Your task to perform on an android device: Go to location settings Image 0: 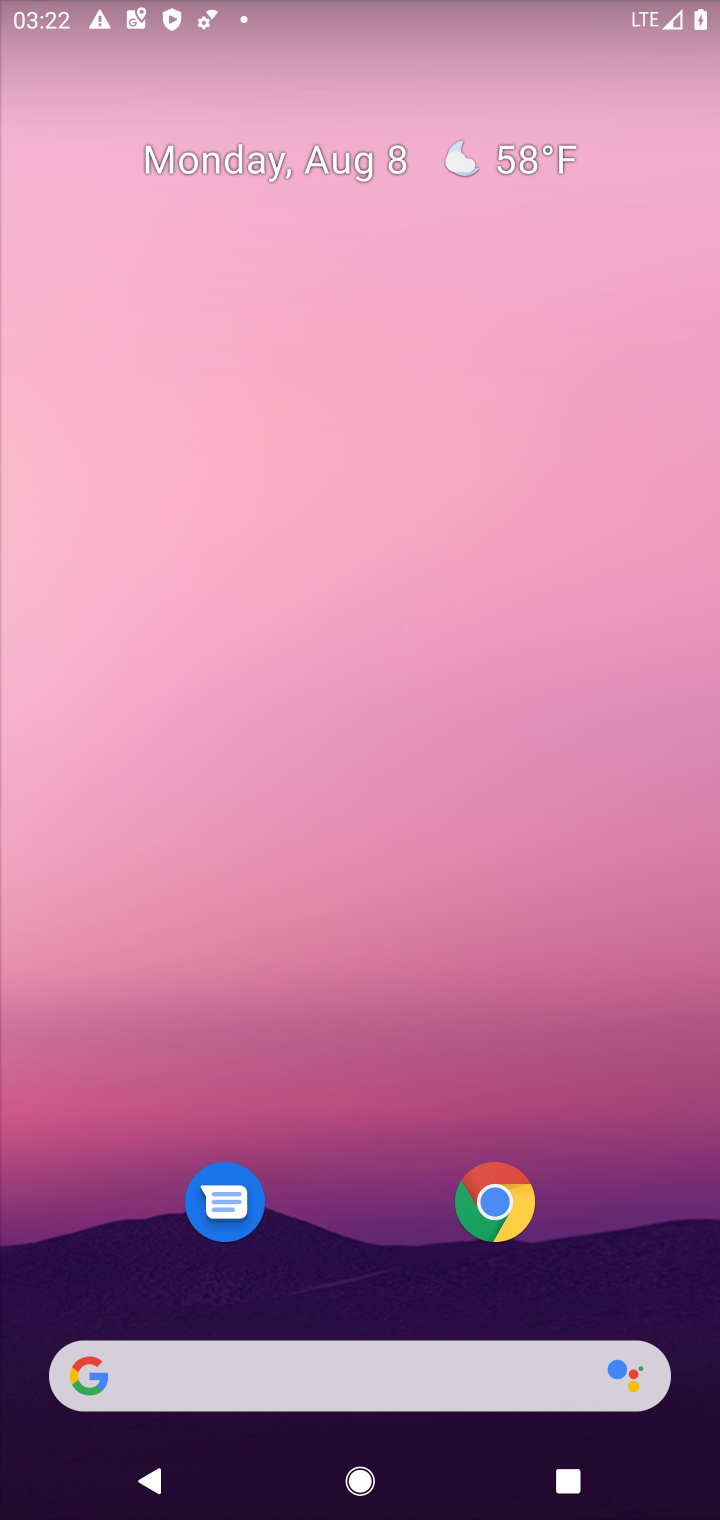
Step 0: press home button
Your task to perform on an android device: Go to location settings Image 1: 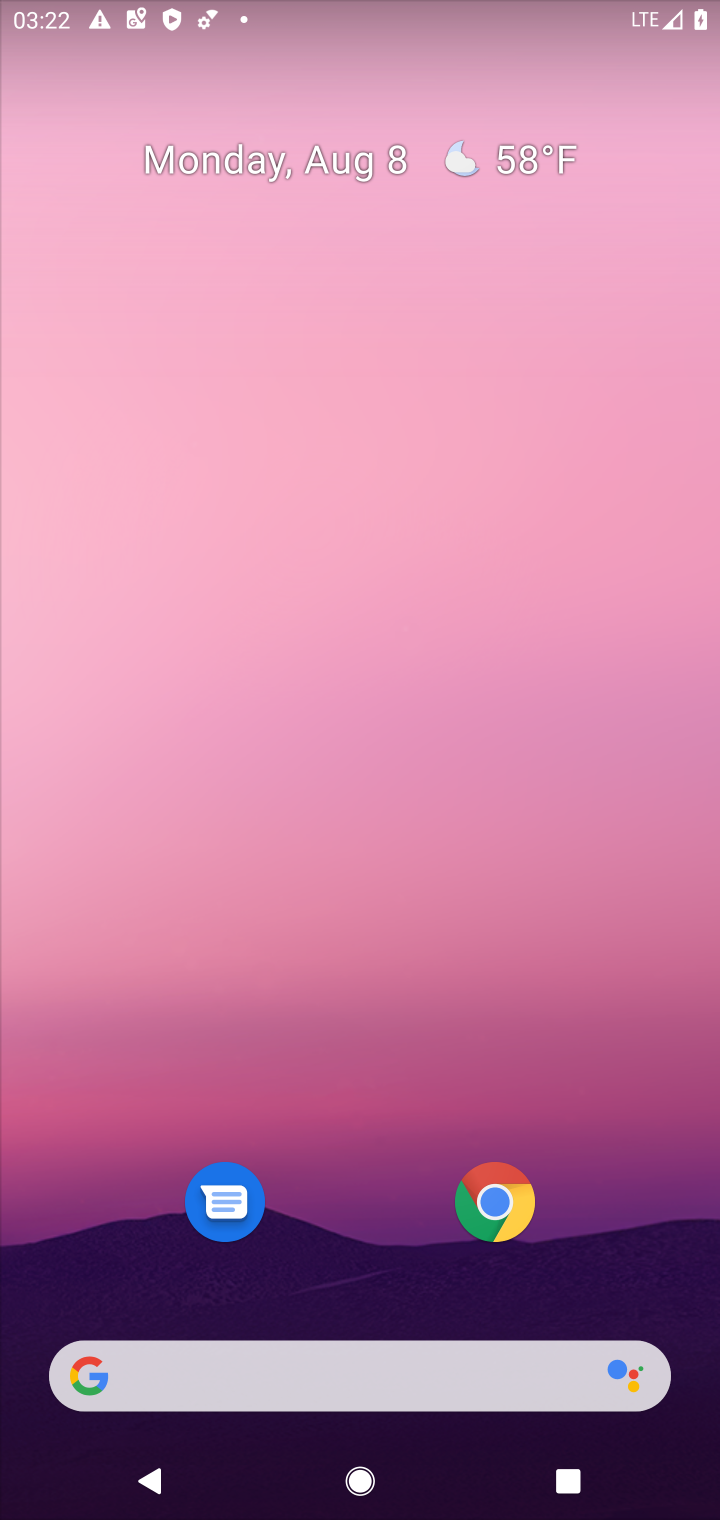
Step 1: drag from (364, 1230) to (386, 362)
Your task to perform on an android device: Go to location settings Image 2: 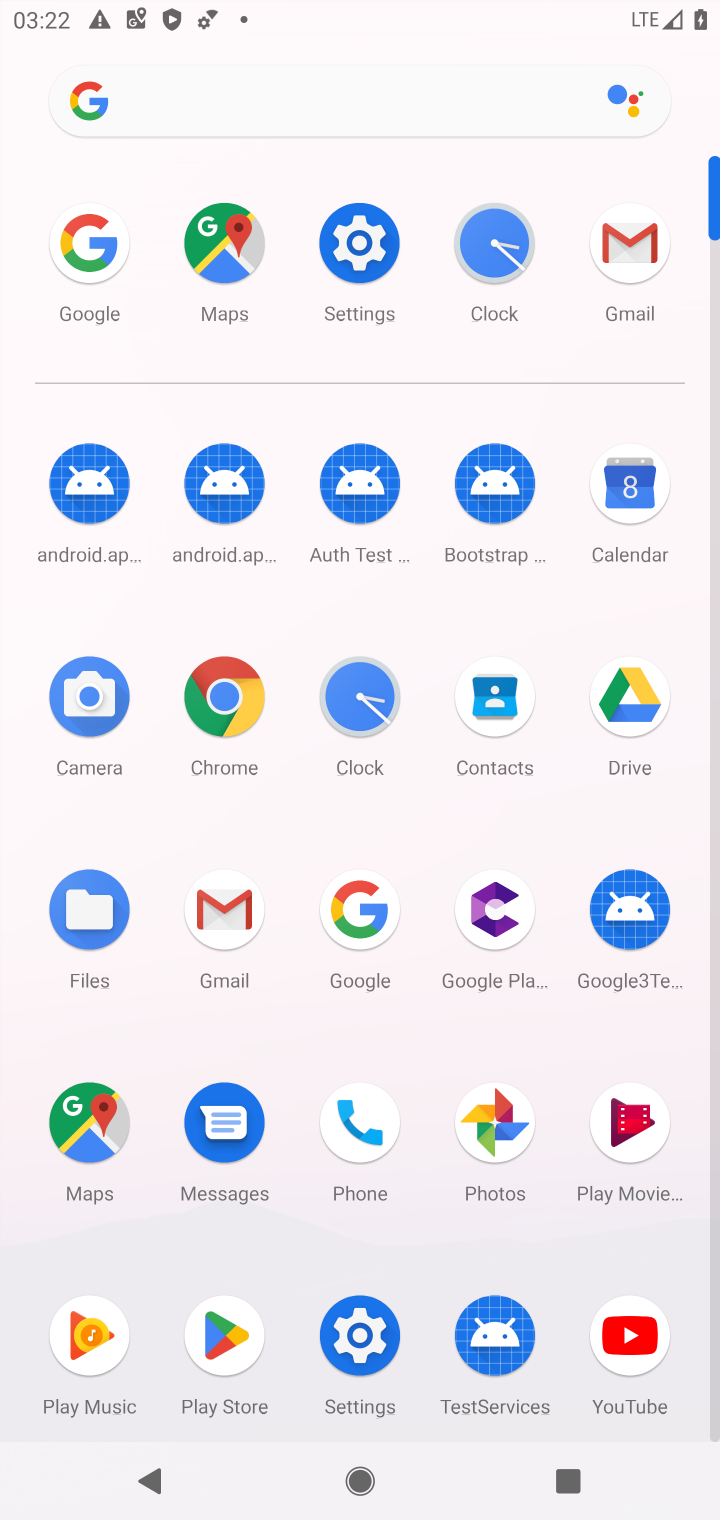
Step 2: click (356, 252)
Your task to perform on an android device: Go to location settings Image 3: 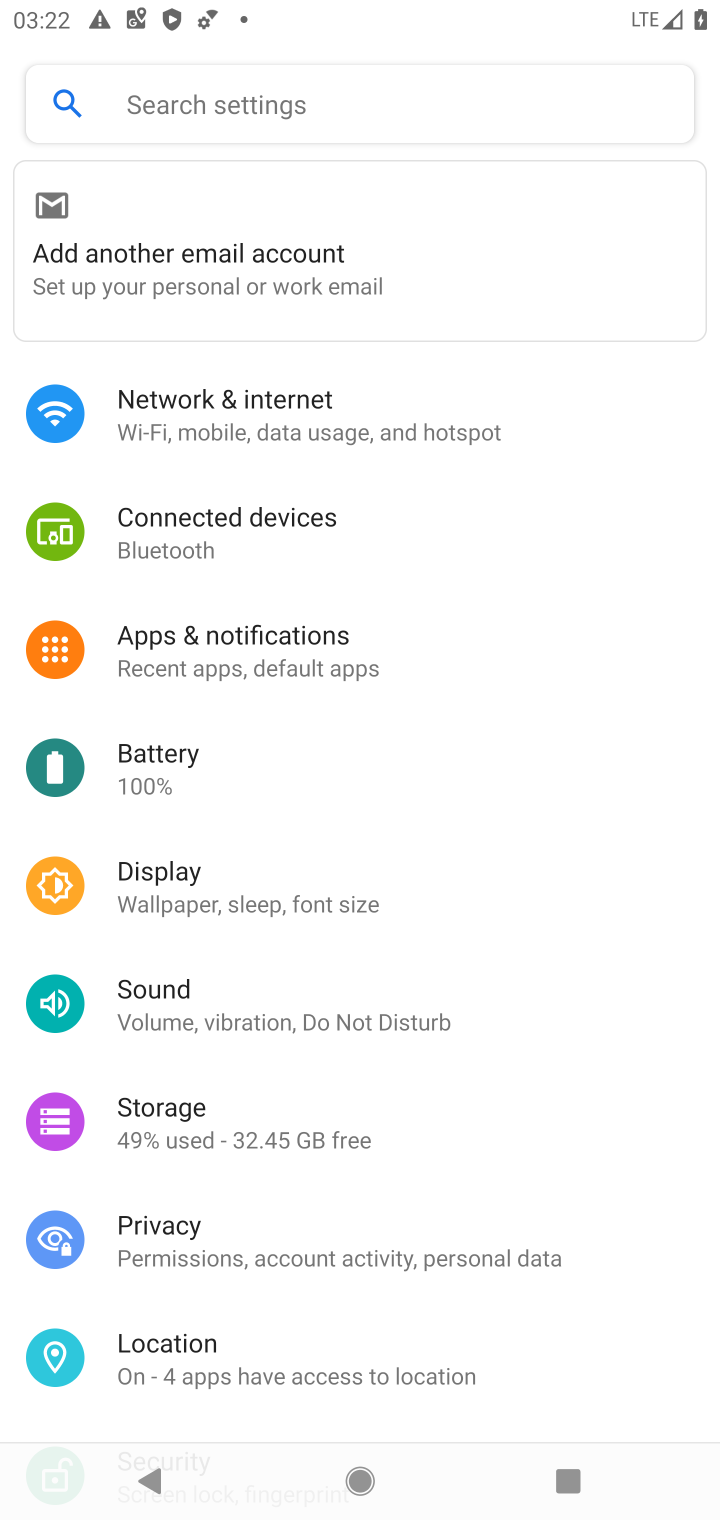
Step 3: click (137, 1355)
Your task to perform on an android device: Go to location settings Image 4: 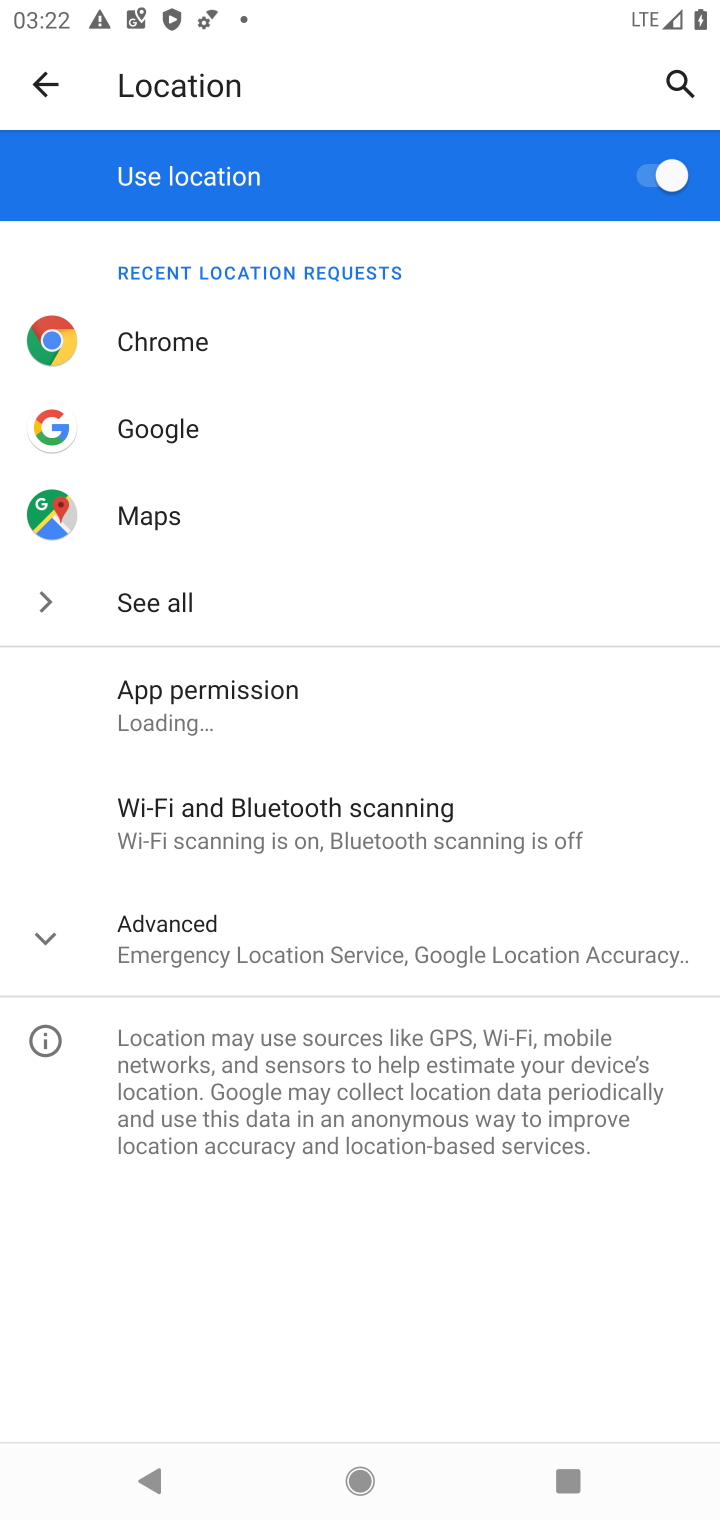
Step 4: task complete